Your task to perform on an android device: remove spam from my inbox in the gmail app Image 0: 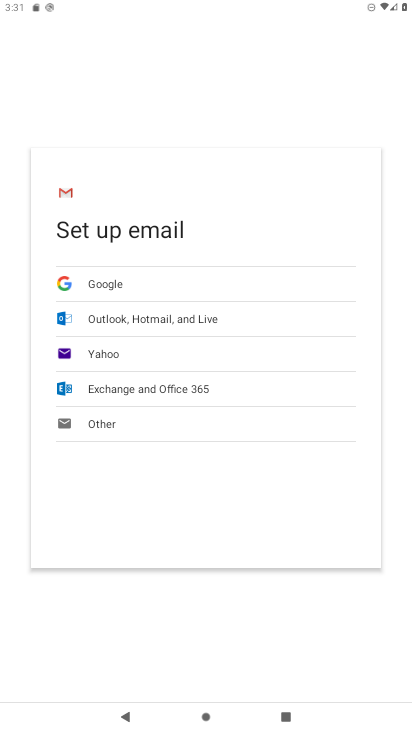
Step 0: press home button
Your task to perform on an android device: remove spam from my inbox in the gmail app Image 1: 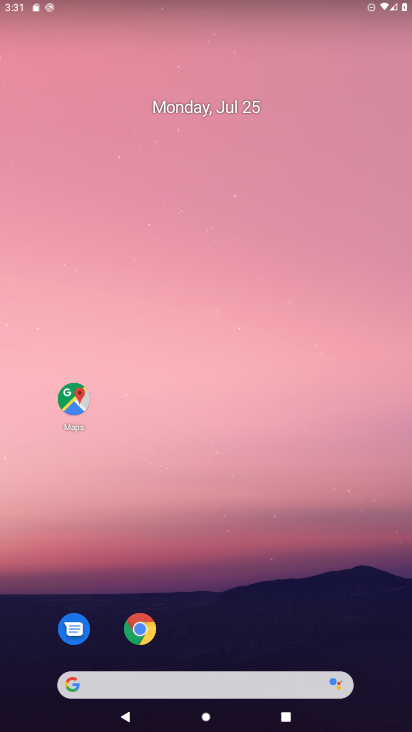
Step 1: drag from (247, 627) to (238, 250)
Your task to perform on an android device: remove spam from my inbox in the gmail app Image 2: 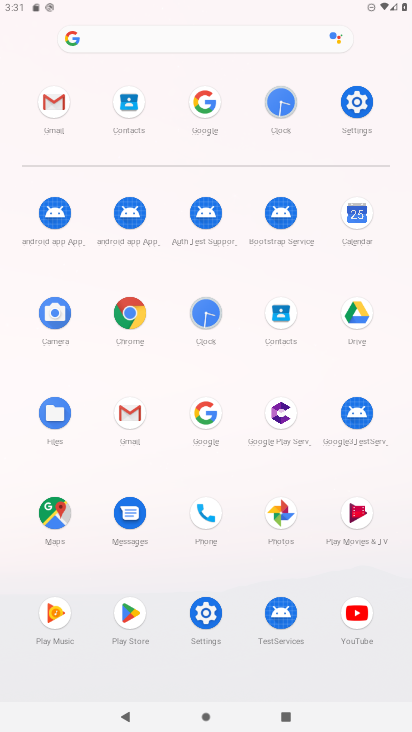
Step 2: click (137, 423)
Your task to perform on an android device: remove spam from my inbox in the gmail app Image 3: 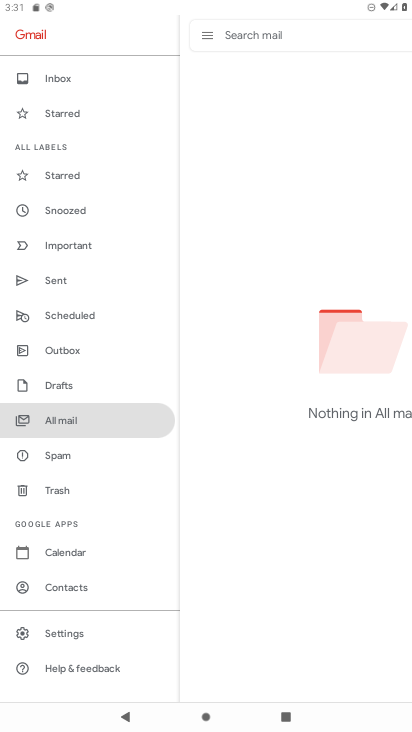
Step 3: click (70, 452)
Your task to perform on an android device: remove spam from my inbox in the gmail app Image 4: 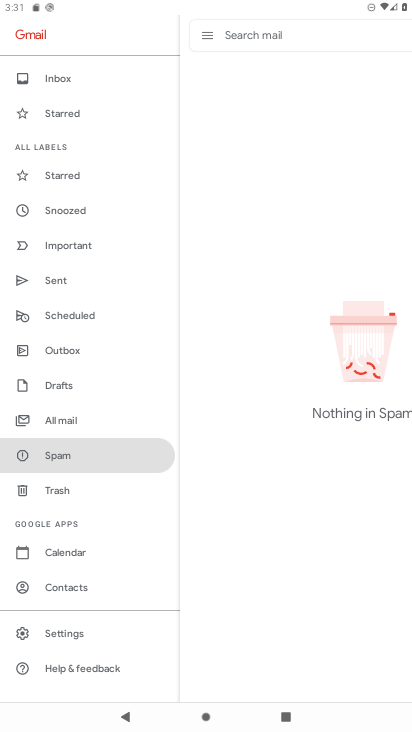
Step 4: task complete